Your task to perform on an android device: turn off notifications settings in the gmail app Image 0: 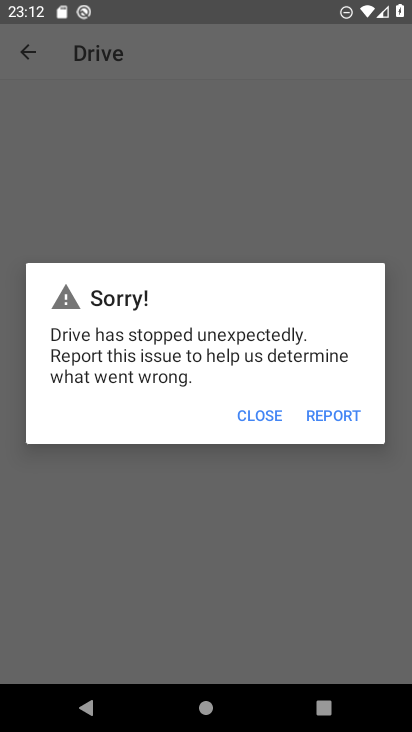
Step 0: press home button
Your task to perform on an android device: turn off notifications settings in the gmail app Image 1: 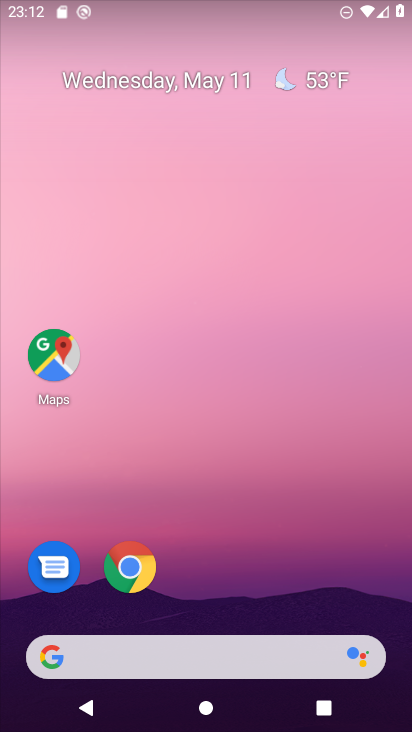
Step 1: drag from (242, 711) to (210, 213)
Your task to perform on an android device: turn off notifications settings in the gmail app Image 2: 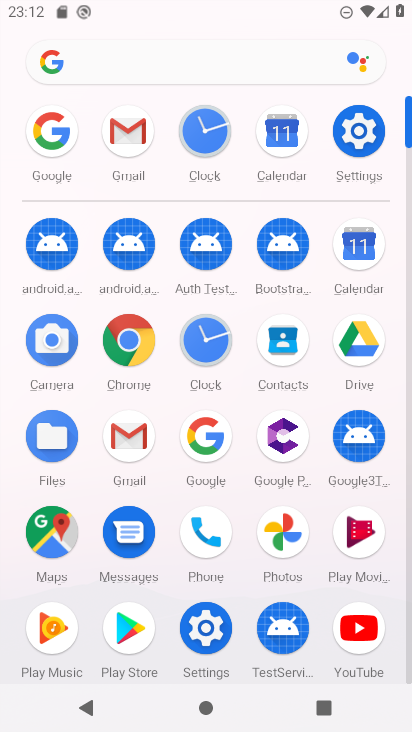
Step 2: click (115, 137)
Your task to perform on an android device: turn off notifications settings in the gmail app Image 3: 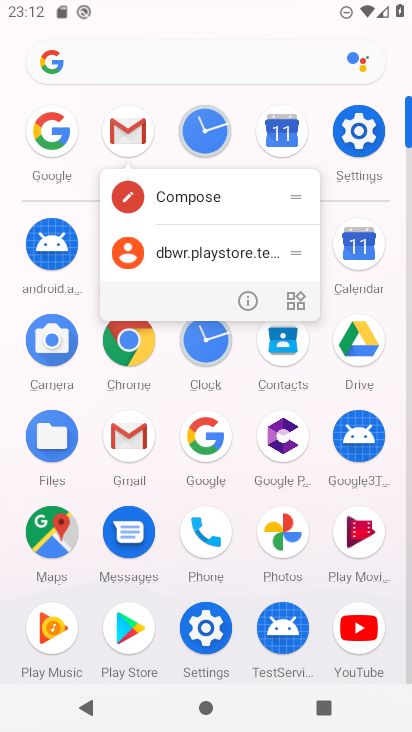
Step 3: click (248, 298)
Your task to perform on an android device: turn off notifications settings in the gmail app Image 4: 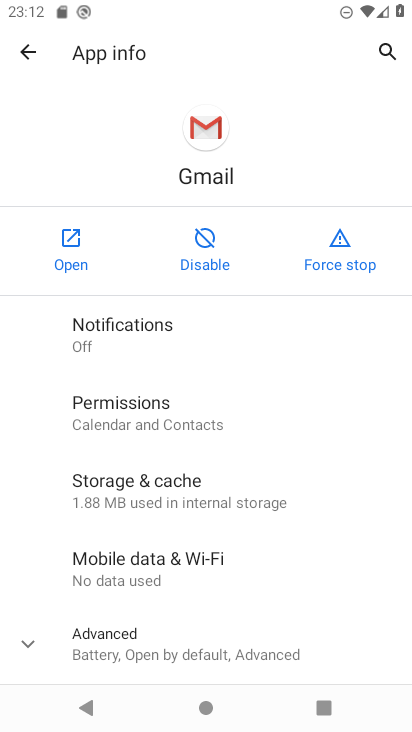
Step 4: click (100, 320)
Your task to perform on an android device: turn off notifications settings in the gmail app Image 5: 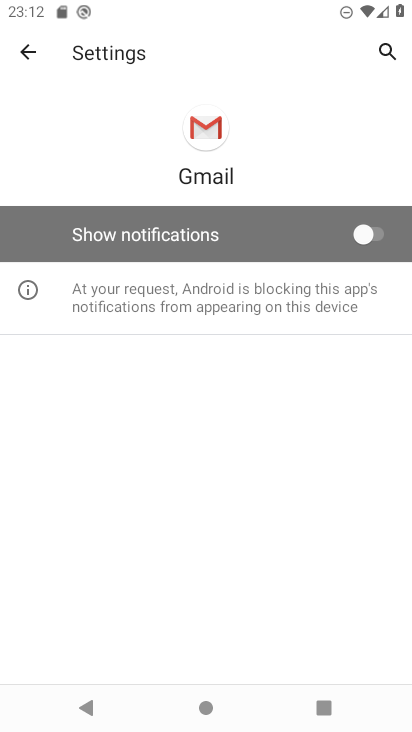
Step 5: task complete